Your task to perform on an android device: manage bookmarks in the chrome app Image 0: 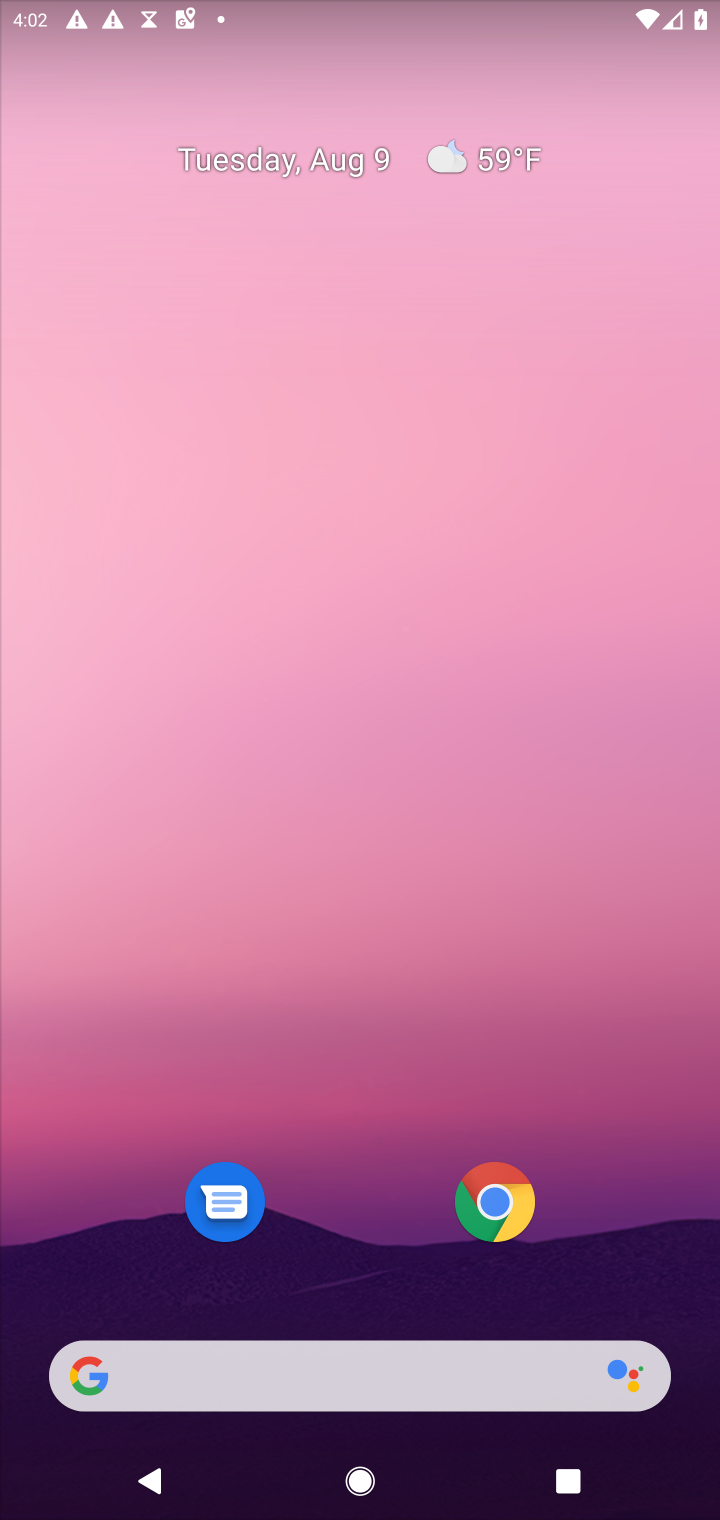
Step 0: drag from (405, 1277) to (356, 168)
Your task to perform on an android device: manage bookmarks in the chrome app Image 1: 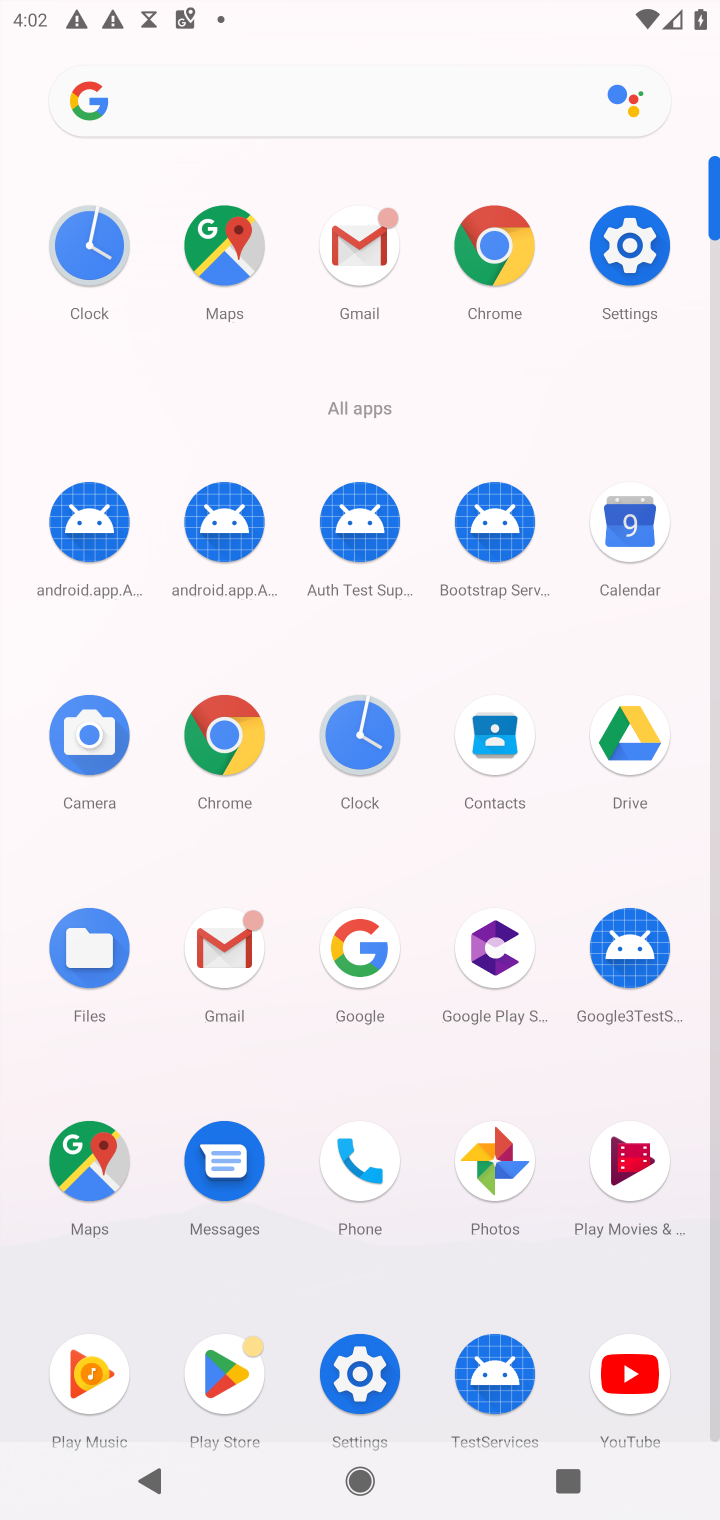
Step 1: click (212, 726)
Your task to perform on an android device: manage bookmarks in the chrome app Image 2: 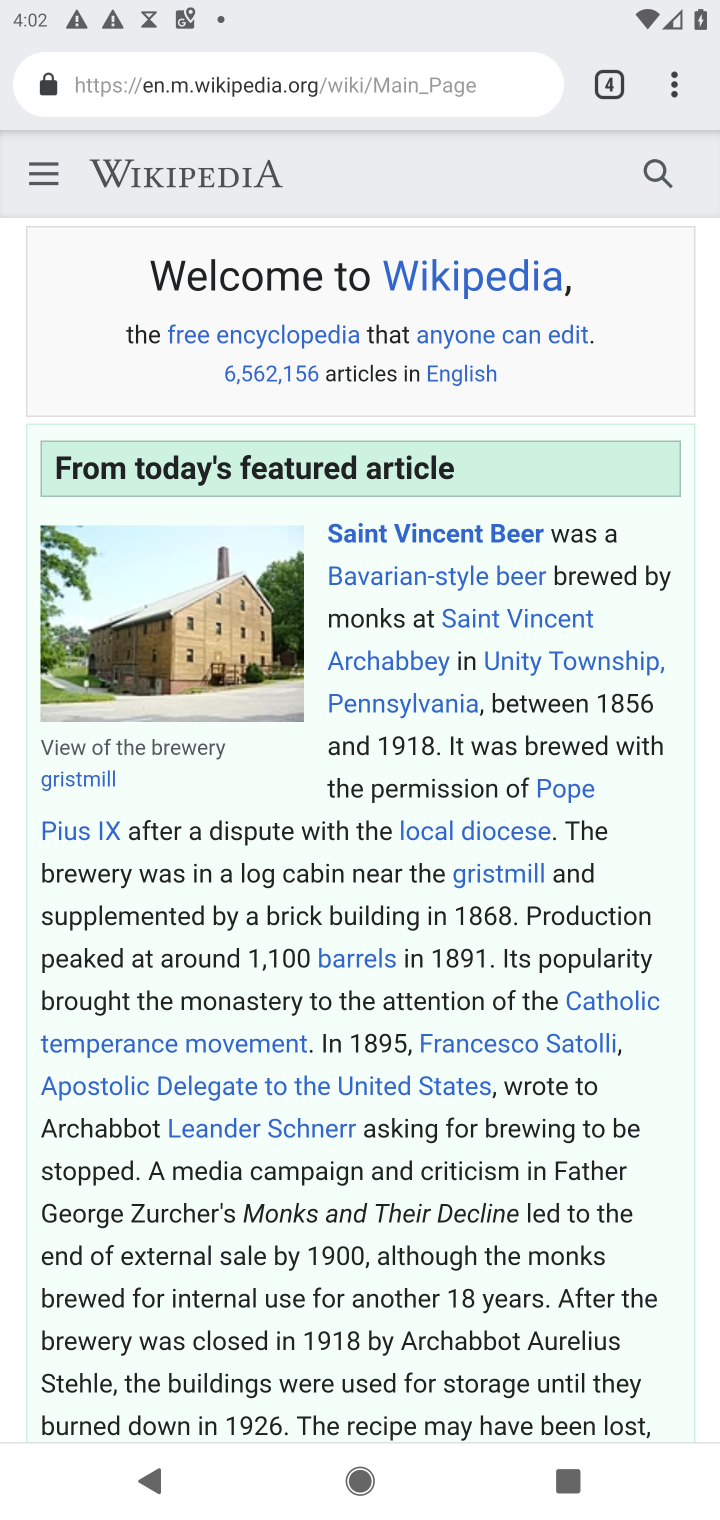
Step 2: click (683, 66)
Your task to perform on an android device: manage bookmarks in the chrome app Image 3: 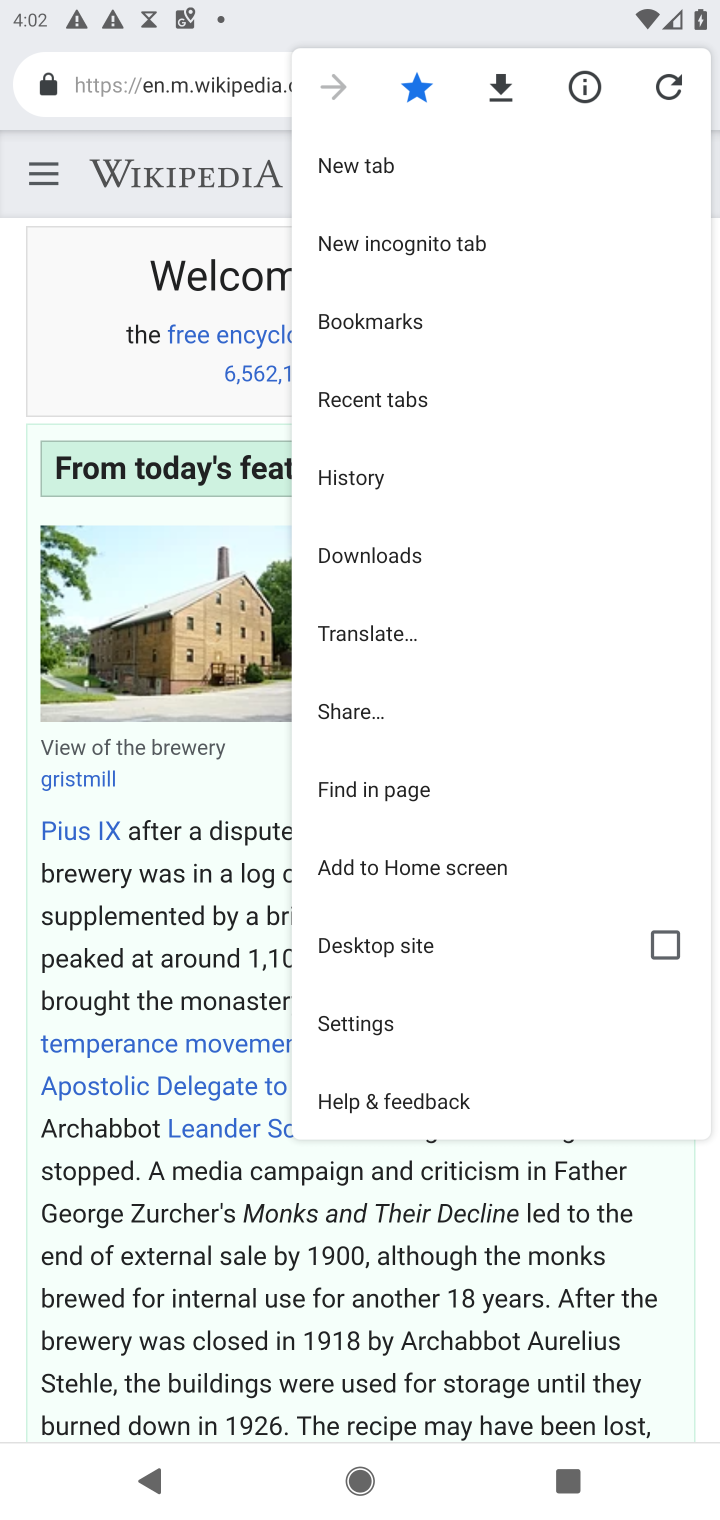
Step 3: click (425, 323)
Your task to perform on an android device: manage bookmarks in the chrome app Image 4: 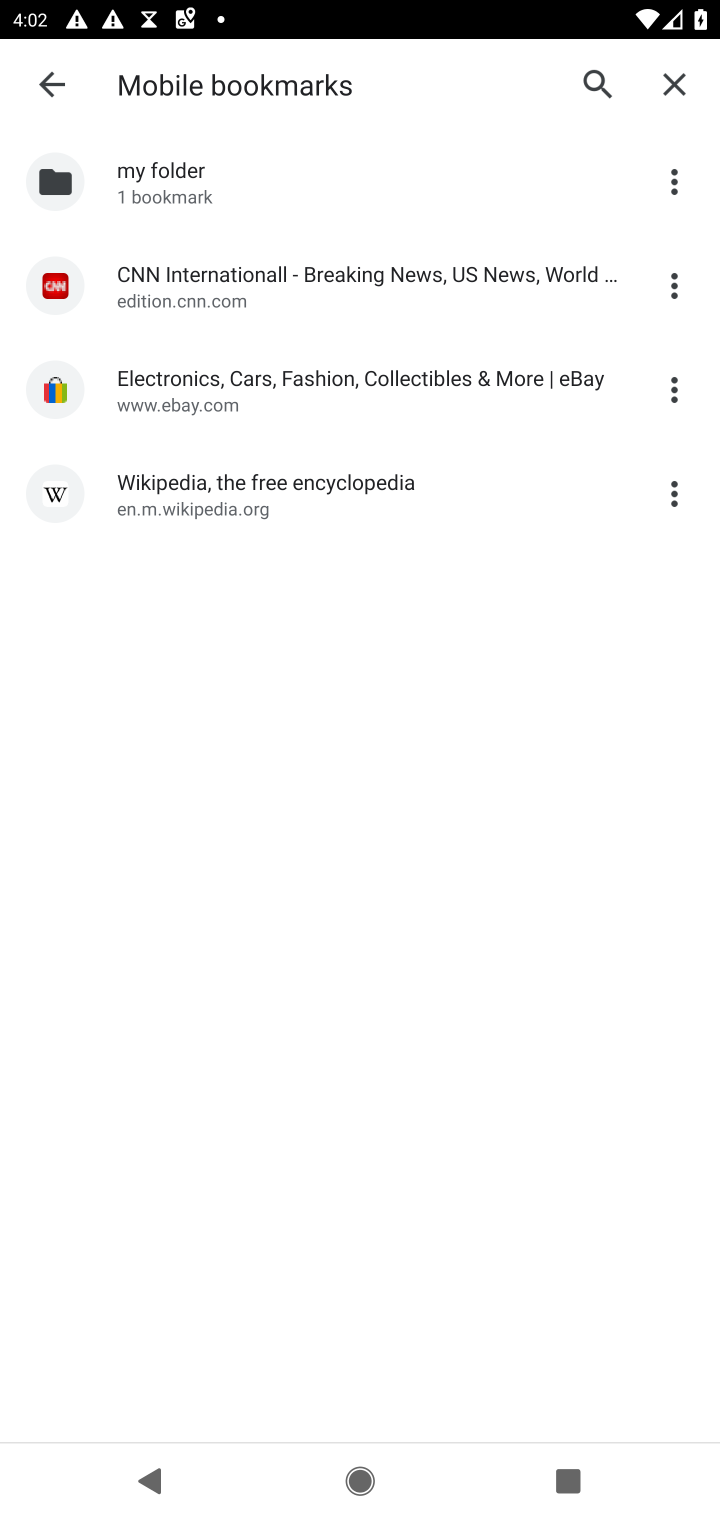
Step 4: click (675, 281)
Your task to perform on an android device: manage bookmarks in the chrome app Image 5: 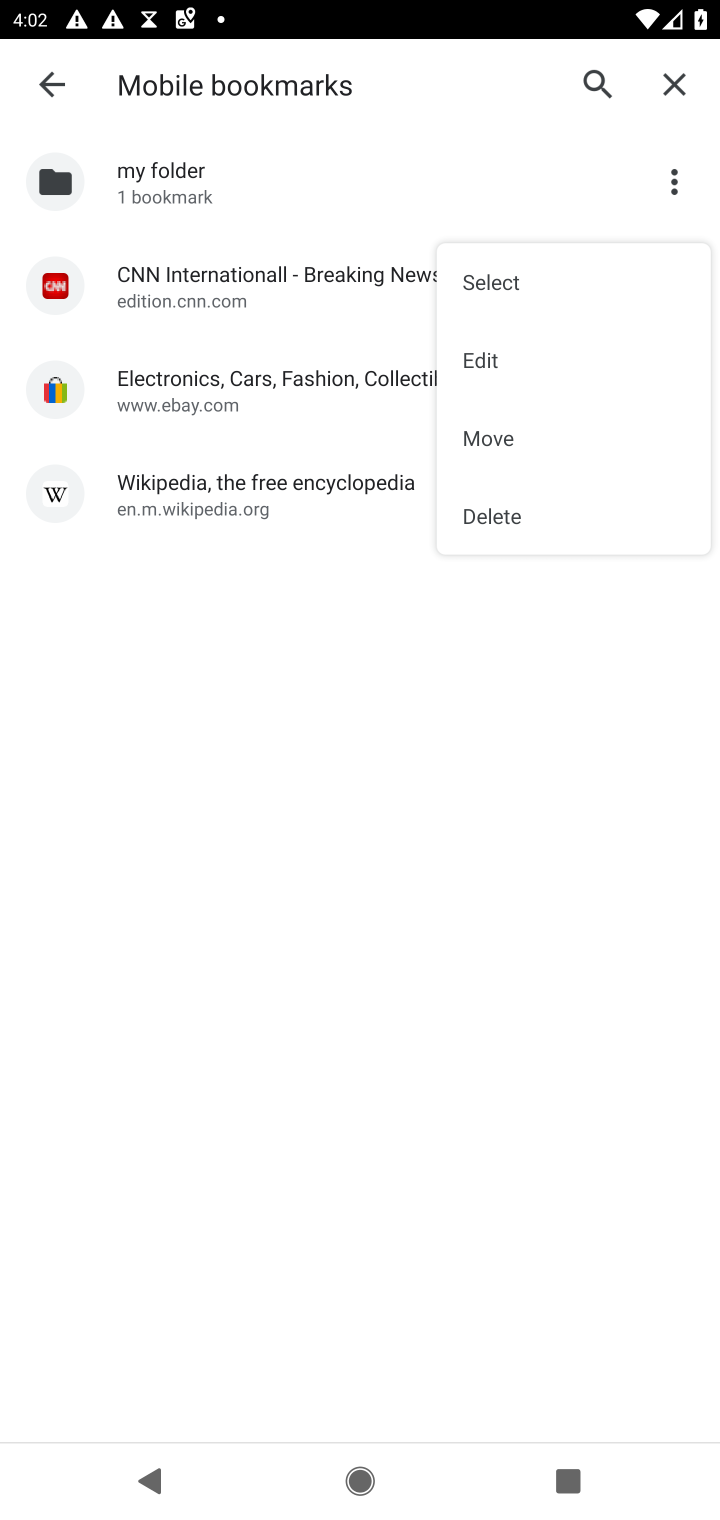
Step 5: click (515, 520)
Your task to perform on an android device: manage bookmarks in the chrome app Image 6: 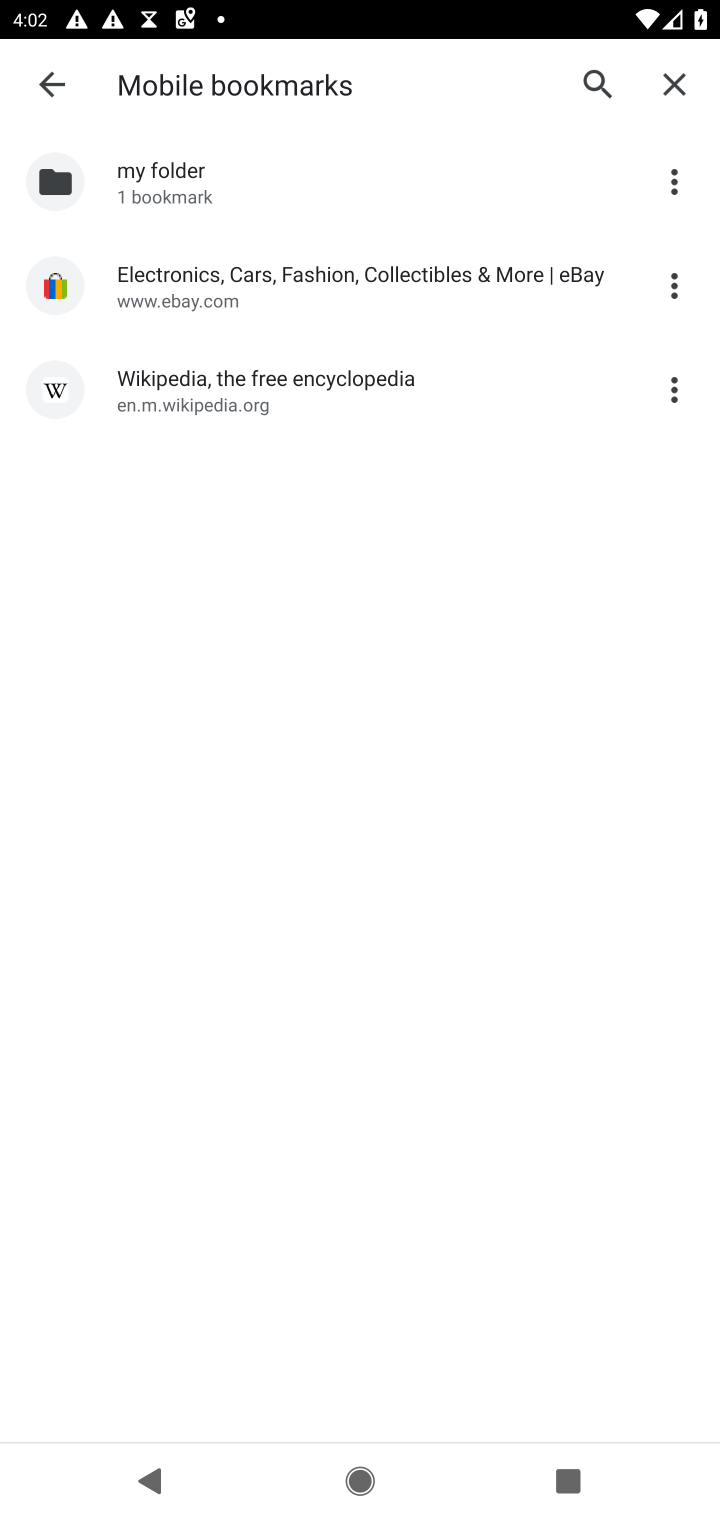
Step 6: task complete